Your task to perform on an android device: change the upload size in google photos Image 0: 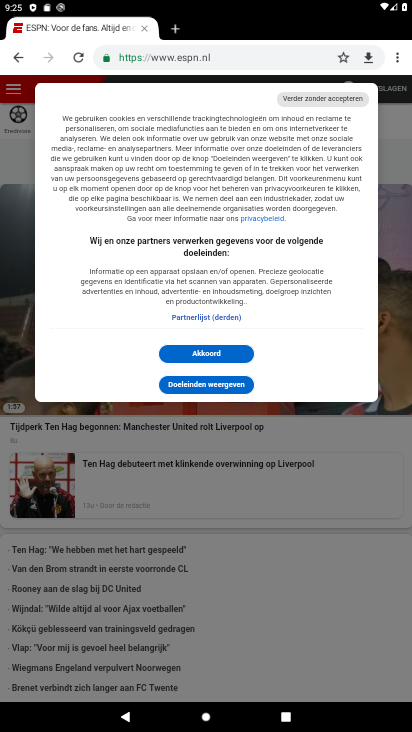
Step 0: press home button
Your task to perform on an android device: change the upload size in google photos Image 1: 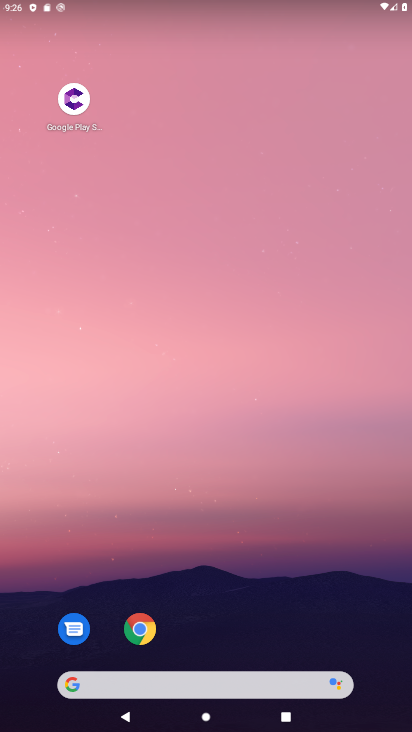
Step 1: drag from (233, 626) to (216, 165)
Your task to perform on an android device: change the upload size in google photos Image 2: 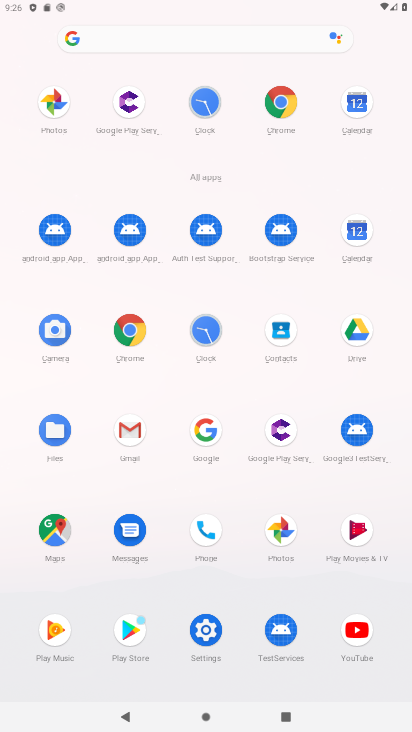
Step 2: click (281, 532)
Your task to perform on an android device: change the upload size in google photos Image 3: 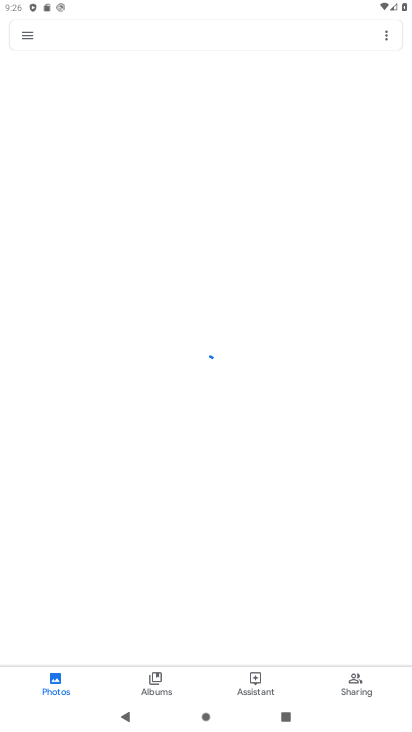
Step 3: click (27, 39)
Your task to perform on an android device: change the upload size in google photos Image 4: 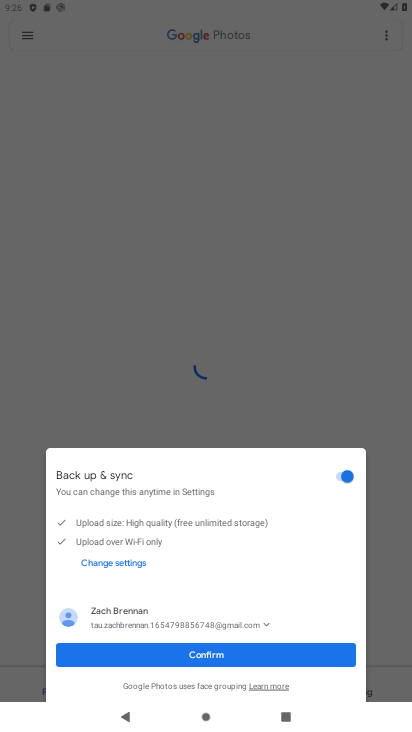
Step 4: click (233, 656)
Your task to perform on an android device: change the upload size in google photos Image 5: 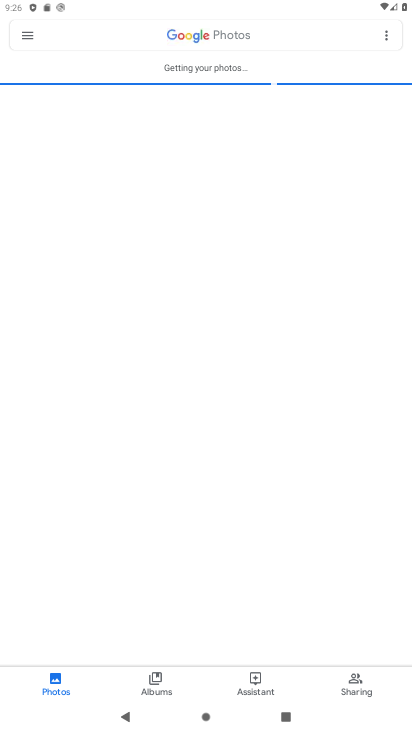
Step 5: click (28, 33)
Your task to perform on an android device: change the upload size in google photos Image 6: 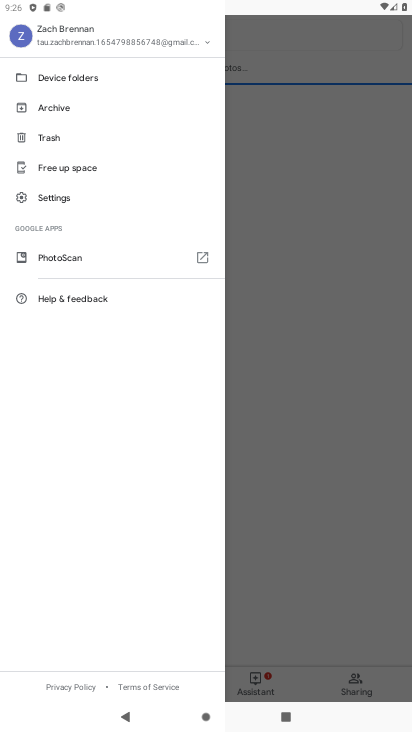
Step 6: click (75, 196)
Your task to perform on an android device: change the upload size in google photos Image 7: 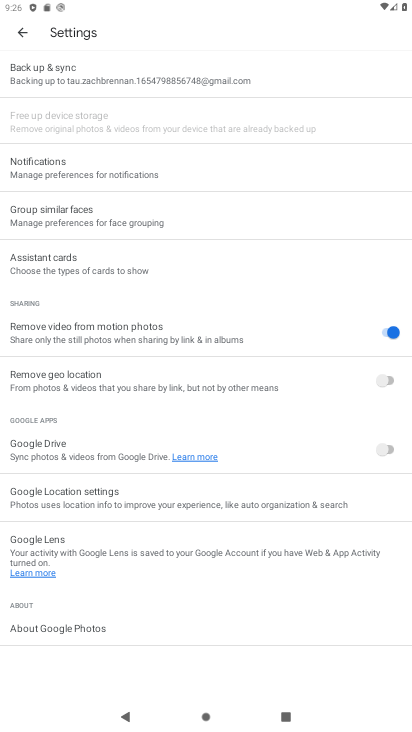
Step 7: click (125, 77)
Your task to perform on an android device: change the upload size in google photos Image 8: 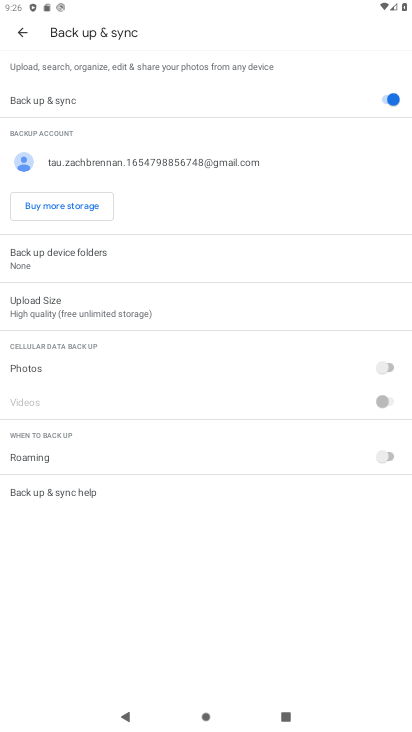
Step 8: click (97, 306)
Your task to perform on an android device: change the upload size in google photos Image 9: 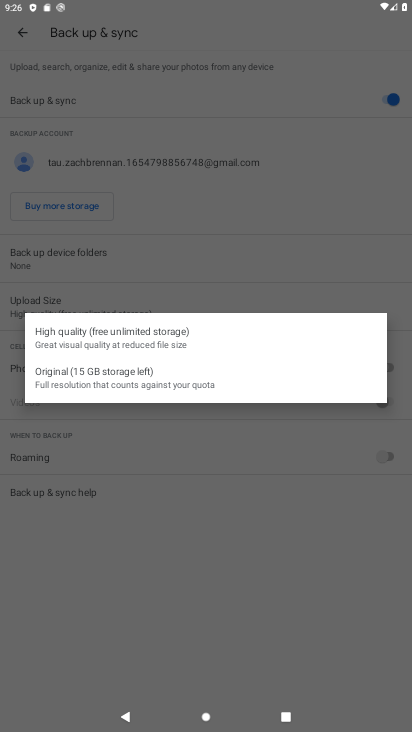
Step 9: click (97, 378)
Your task to perform on an android device: change the upload size in google photos Image 10: 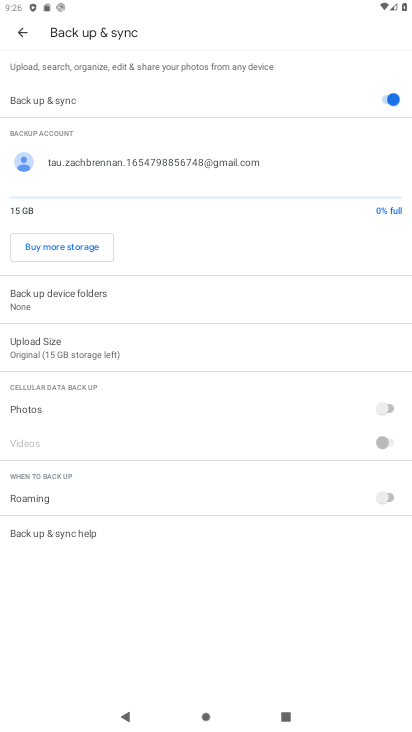
Step 10: task complete